Your task to perform on an android device: open chrome and create a bookmark for the current page Image 0: 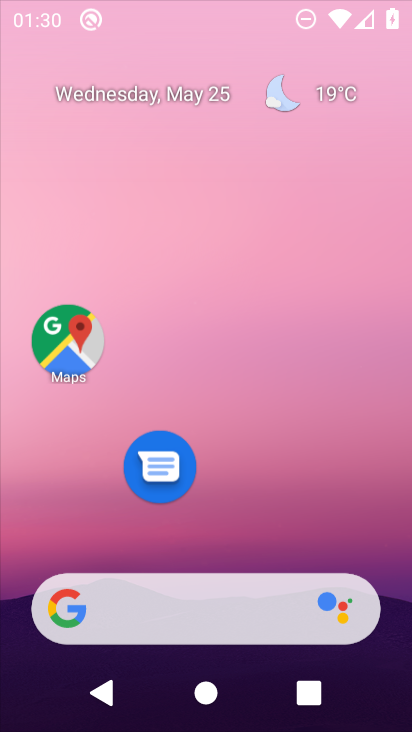
Step 0: click (308, 98)
Your task to perform on an android device: open chrome and create a bookmark for the current page Image 1: 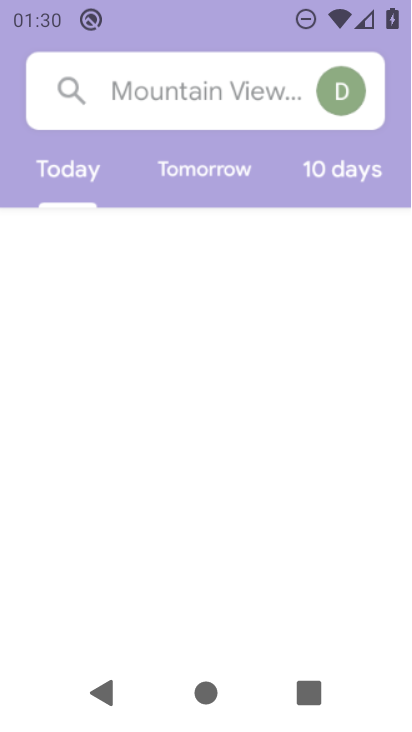
Step 1: drag from (222, 558) to (362, 73)
Your task to perform on an android device: open chrome and create a bookmark for the current page Image 2: 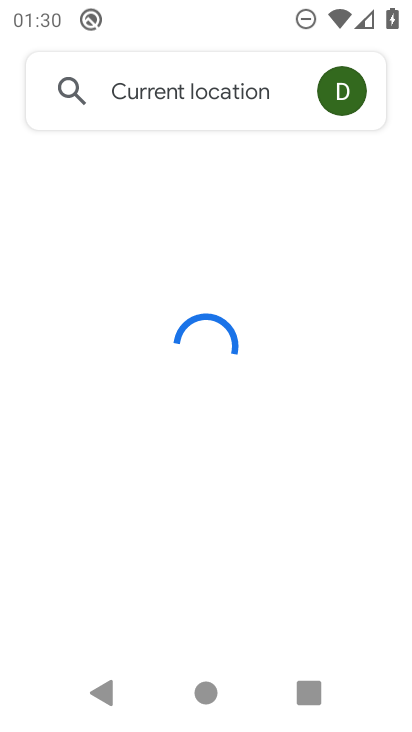
Step 2: press home button
Your task to perform on an android device: open chrome and create a bookmark for the current page Image 3: 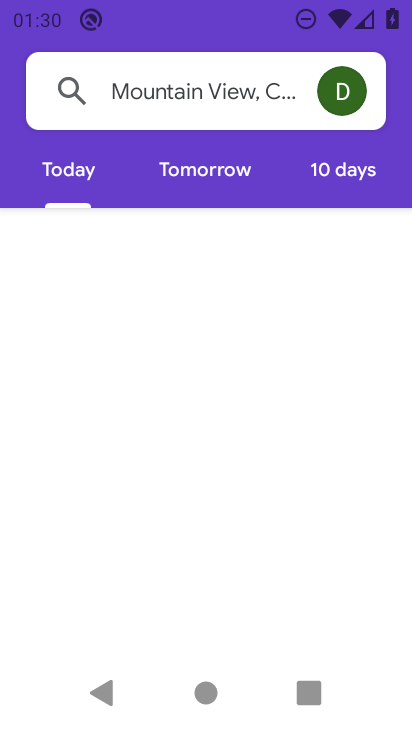
Step 3: press home button
Your task to perform on an android device: open chrome and create a bookmark for the current page Image 4: 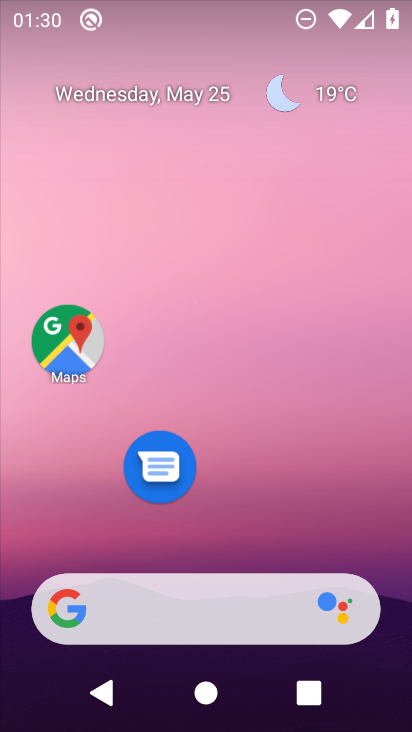
Step 4: drag from (213, 570) to (372, 12)
Your task to perform on an android device: open chrome and create a bookmark for the current page Image 5: 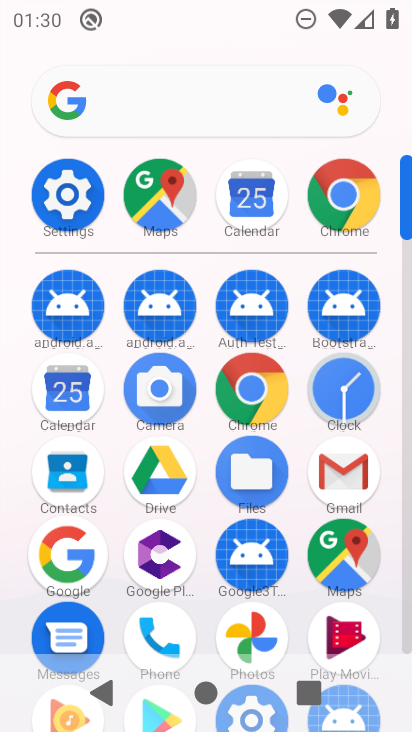
Step 5: click (348, 192)
Your task to perform on an android device: open chrome and create a bookmark for the current page Image 6: 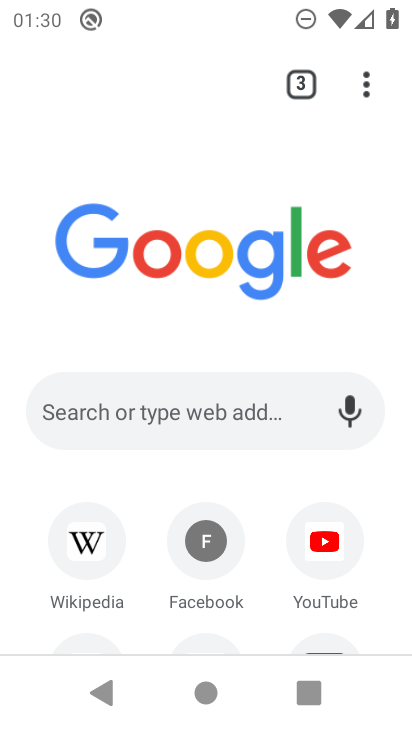
Step 6: task complete